Your task to perform on an android device: turn vacation reply on in the gmail app Image 0: 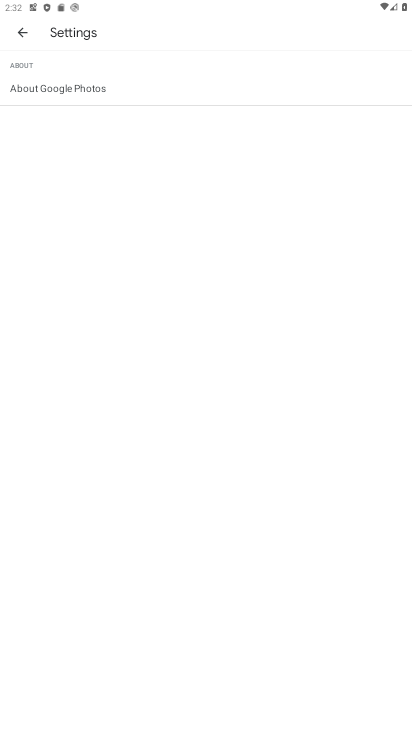
Step 0: drag from (178, 664) to (218, 224)
Your task to perform on an android device: turn vacation reply on in the gmail app Image 1: 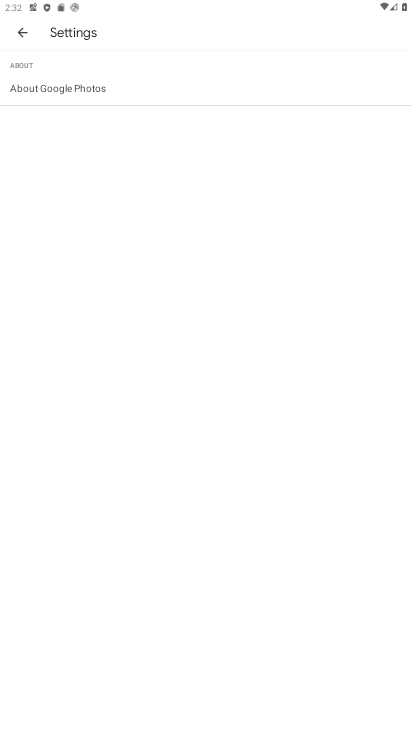
Step 1: press home button
Your task to perform on an android device: turn vacation reply on in the gmail app Image 2: 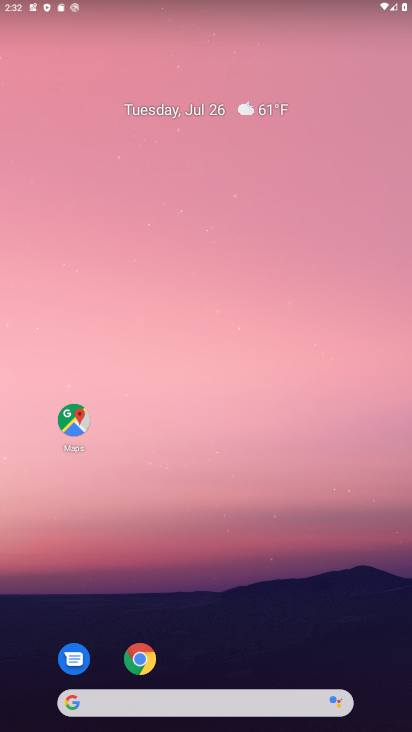
Step 2: drag from (247, 644) to (222, 154)
Your task to perform on an android device: turn vacation reply on in the gmail app Image 3: 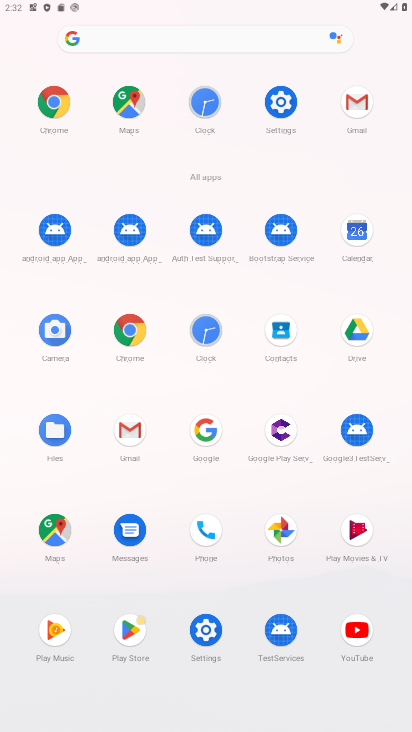
Step 3: click (128, 444)
Your task to perform on an android device: turn vacation reply on in the gmail app Image 4: 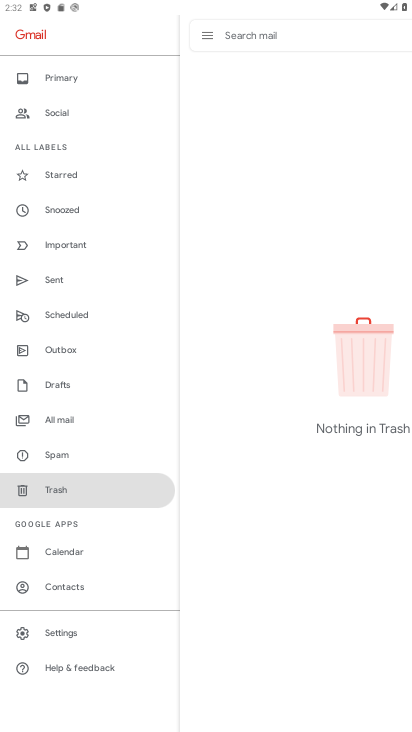
Step 4: click (66, 632)
Your task to perform on an android device: turn vacation reply on in the gmail app Image 5: 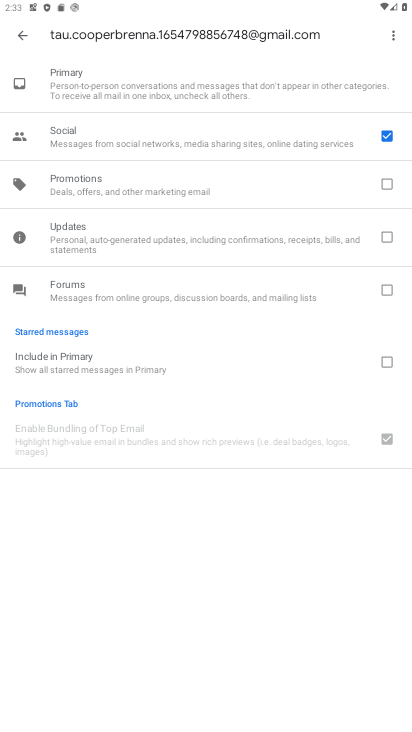
Step 5: drag from (114, 379) to (110, 728)
Your task to perform on an android device: turn vacation reply on in the gmail app Image 6: 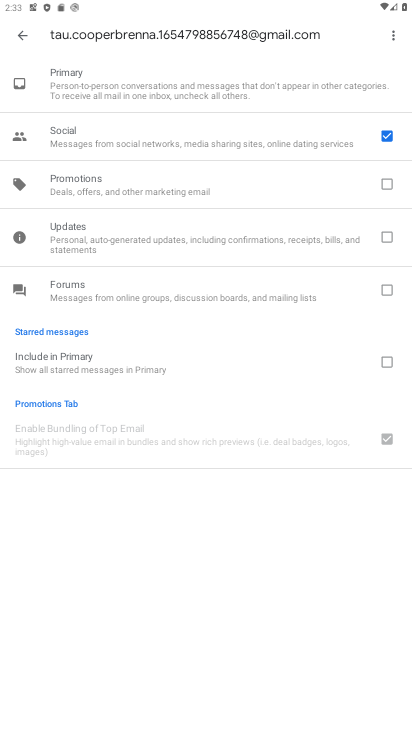
Step 6: click (20, 48)
Your task to perform on an android device: turn vacation reply on in the gmail app Image 7: 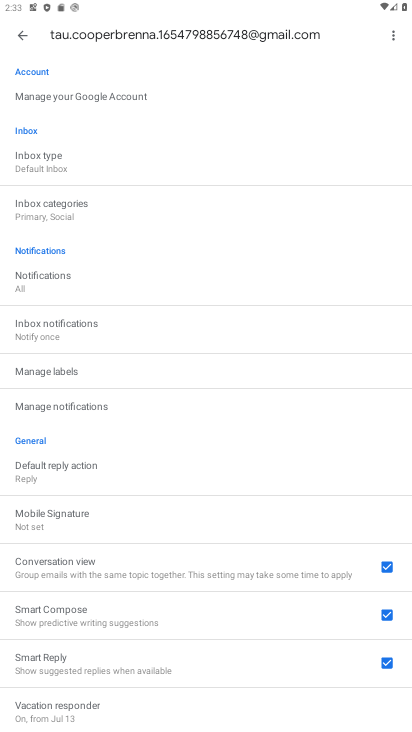
Step 7: drag from (193, 633) to (279, 275)
Your task to perform on an android device: turn vacation reply on in the gmail app Image 8: 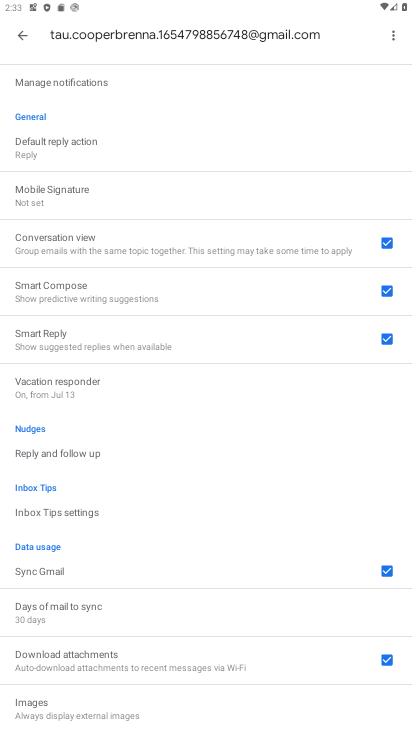
Step 8: click (106, 388)
Your task to perform on an android device: turn vacation reply on in the gmail app Image 9: 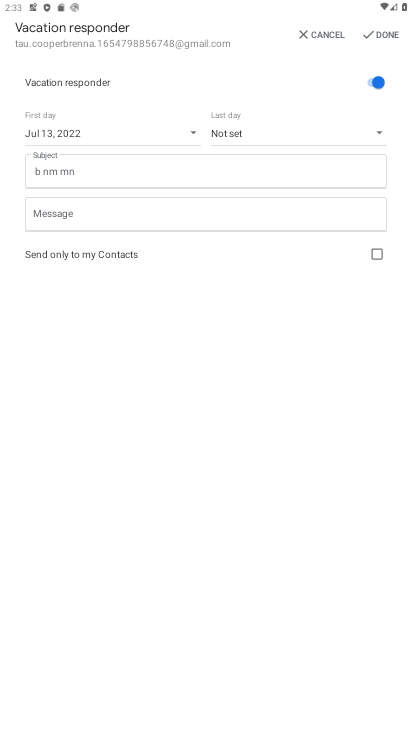
Step 9: click (380, 34)
Your task to perform on an android device: turn vacation reply on in the gmail app Image 10: 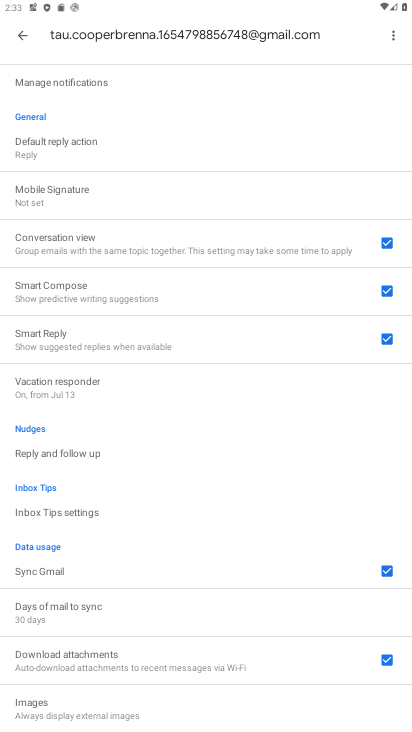
Step 10: task complete